Your task to perform on an android device: Set the phone to "Do not disturb". Image 0: 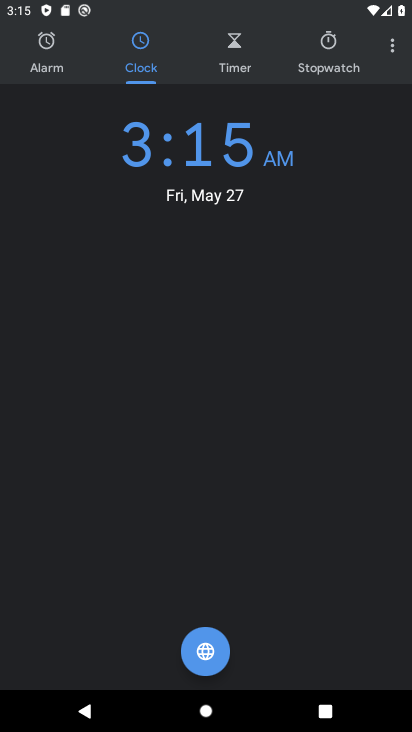
Step 0: drag from (319, 59) to (294, 496)
Your task to perform on an android device: Set the phone to "Do not disturb". Image 1: 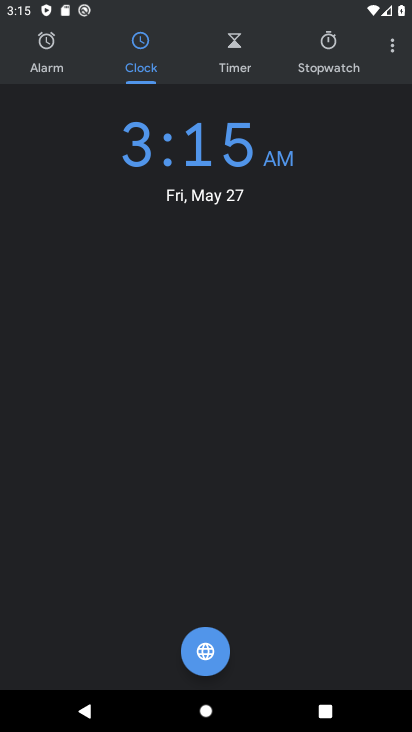
Step 1: drag from (158, 5) to (326, 570)
Your task to perform on an android device: Set the phone to "Do not disturb". Image 2: 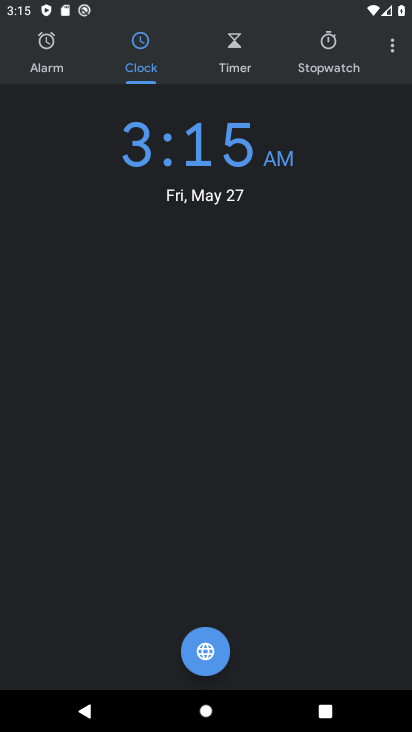
Step 2: drag from (237, 2) to (298, 540)
Your task to perform on an android device: Set the phone to "Do not disturb". Image 3: 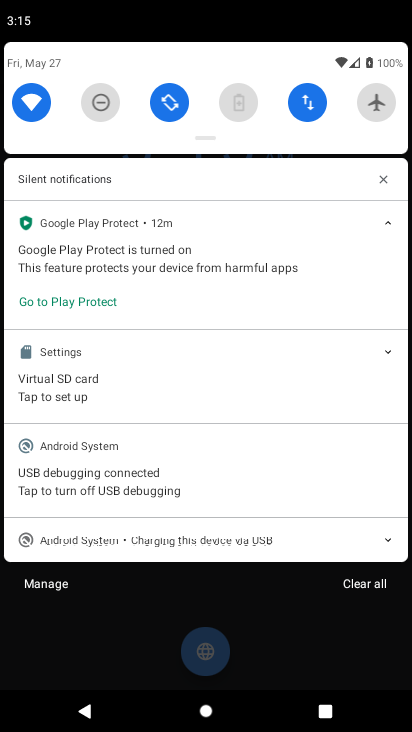
Step 3: click (97, 98)
Your task to perform on an android device: Set the phone to "Do not disturb". Image 4: 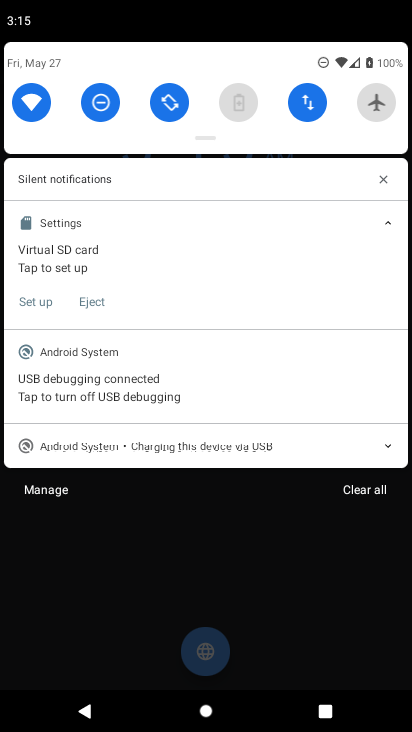
Step 4: task complete